Your task to perform on an android device: search for starred emails in the gmail app Image 0: 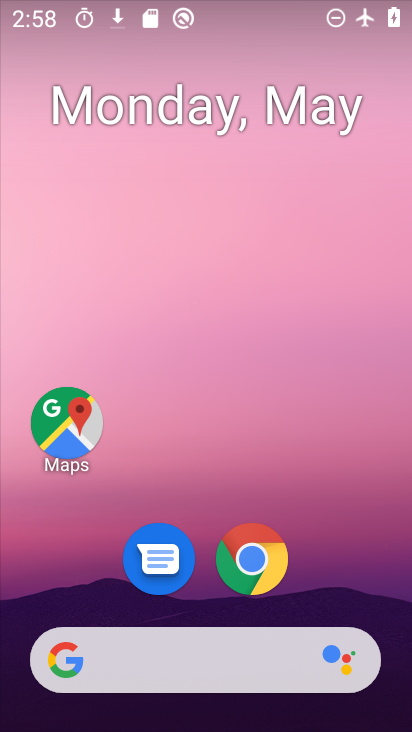
Step 0: drag from (222, 503) to (284, 170)
Your task to perform on an android device: search for starred emails in the gmail app Image 1: 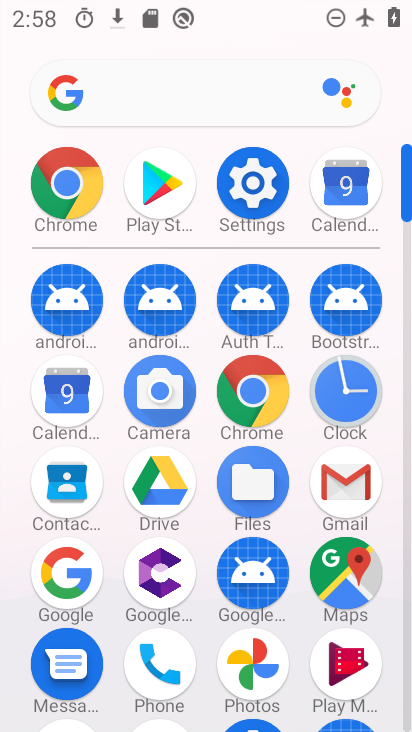
Step 1: click (341, 494)
Your task to perform on an android device: search for starred emails in the gmail app Image 2: 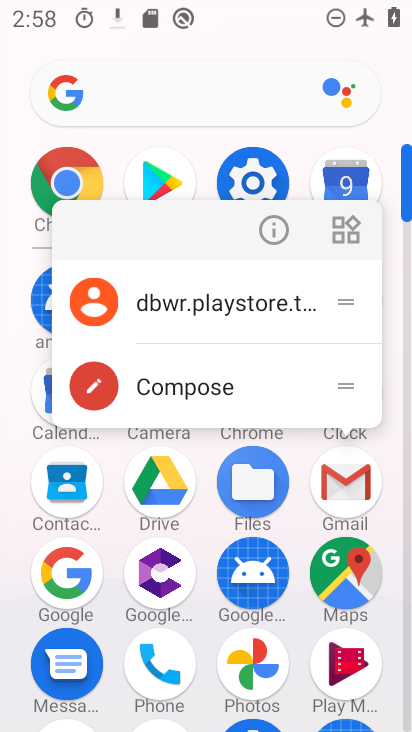
Step 2: click (288, 244)
Your task to perform on an android device: search for starred emails in the gmail app Image 3: 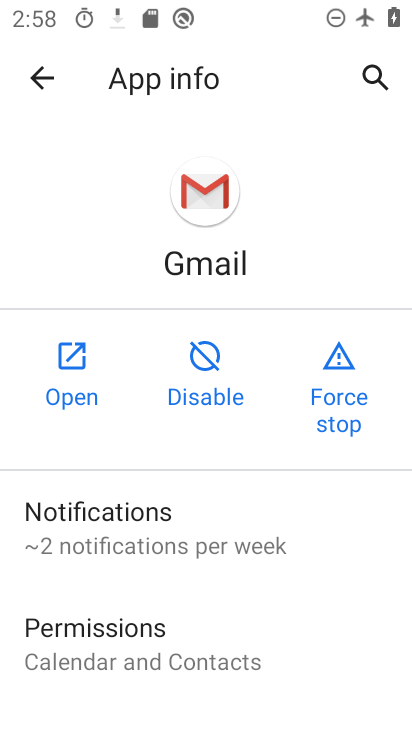
Step 3: click (86, 404)
Your task to perform on an android device: search for starred emails in the gmail app Image 4: 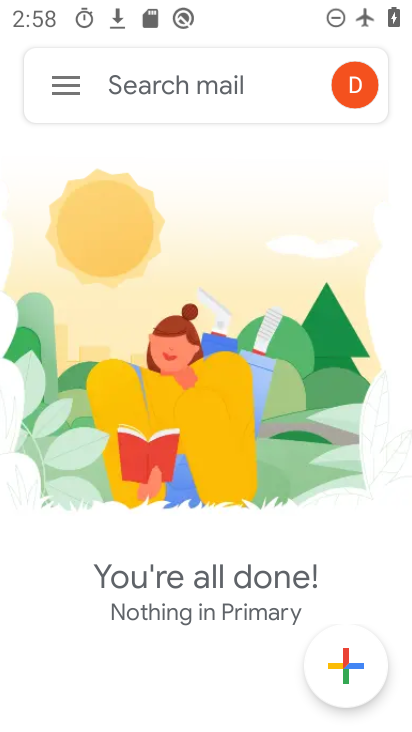
Step 4: click (74, 78)
Your task to perform on an android device: search for starred emails in the gmail app Image 5: 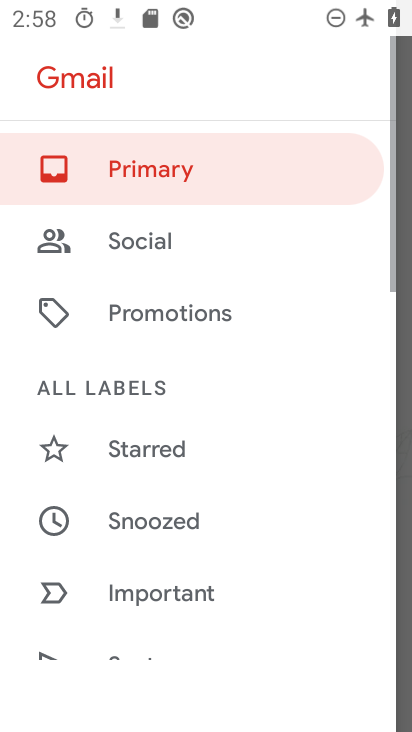
Step 5: drag from (140, 495) to (265, 70)
Your task to perform on an android device: search for starred emails in the gmail app Image 6: 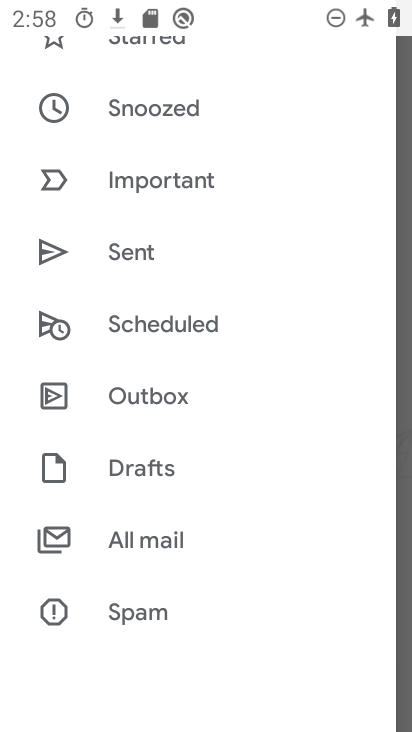
Step 6: drag from (173, 563) to (188, 175)
Your task to perform on an android device: search for starred emails in the gmail app Image 7: 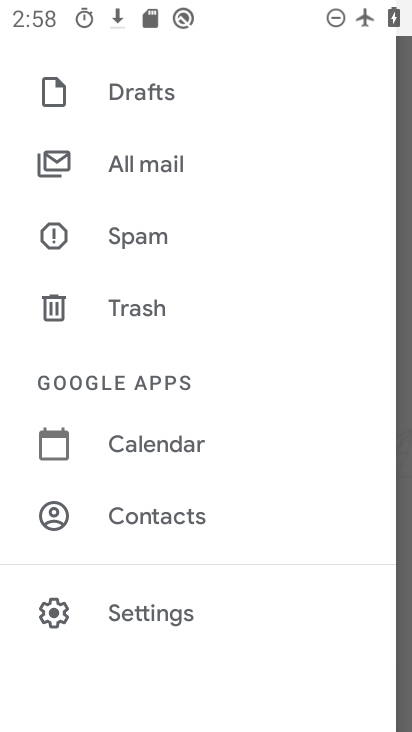
Step 7: drag from (199, 534) to (211, 186)
Your task to perform on an android device: search for starred emails in the gmail app Image 8: 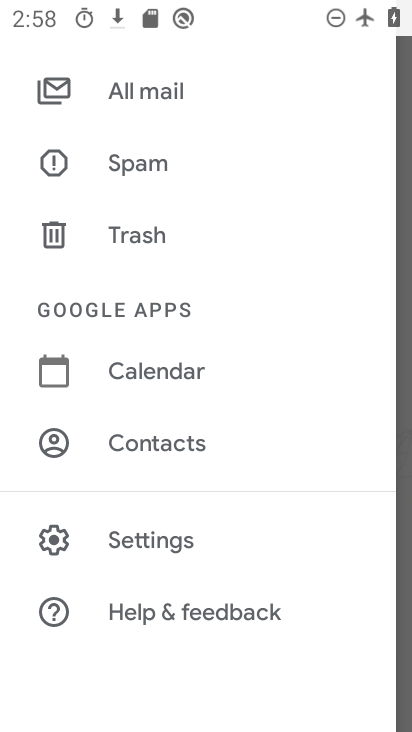
Step 8: click (252, 527)
Your task to perform on an android device: search for starred emails in the gmail app Image 9: 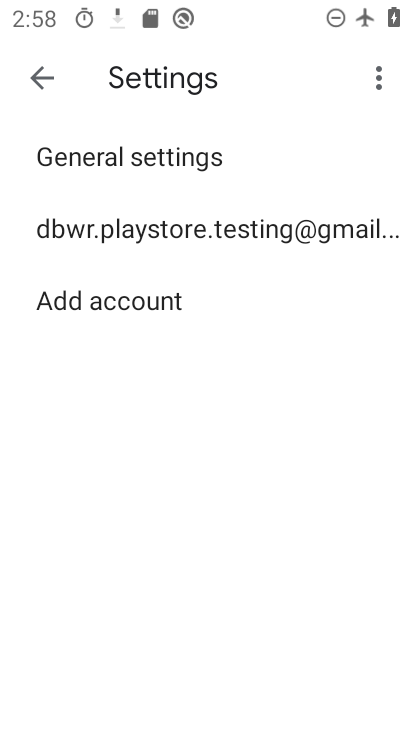
Step 9: click (49, 82)
Your task to perform on an android device: search for starred emails in the gmail app Image 10: 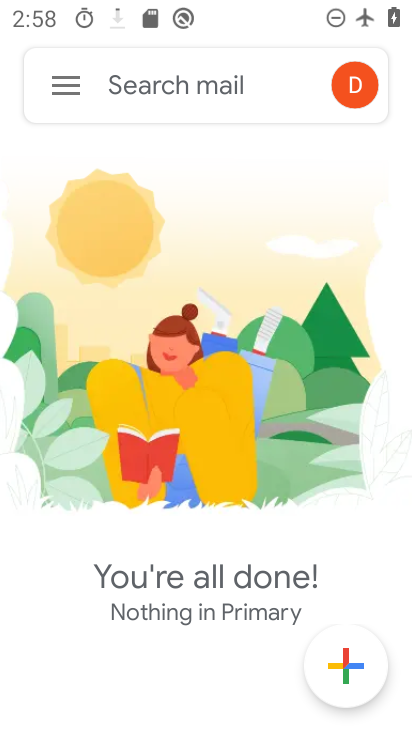
Step 10: click (69, 92)
Your task to perform on an android device: search for starred emails in the gmail app Image 11: 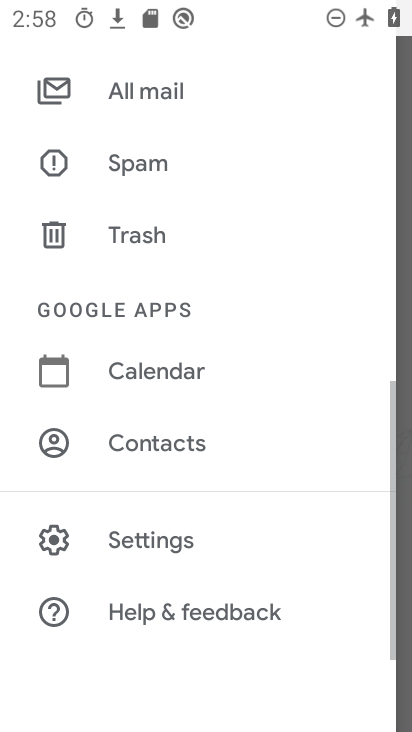
Step 11: drag from (161, 207) to (260, 713)
Your task to perform on an android device: search for starred emails in the gmail app Image 12: 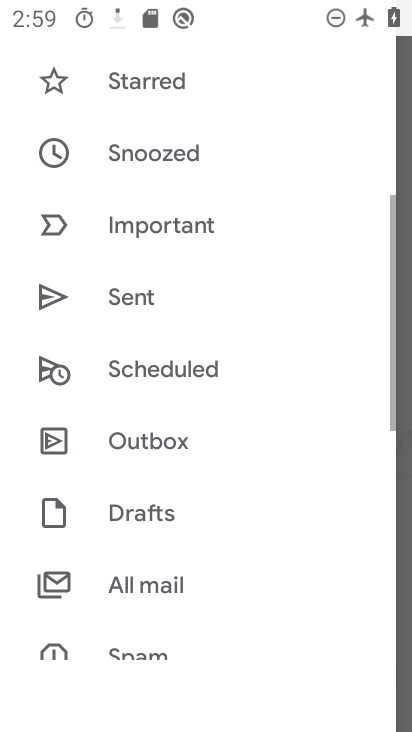
Step 12: click (148, 93)
Your task to perform on an android device: search for starred emails in the gmail app Image 13: 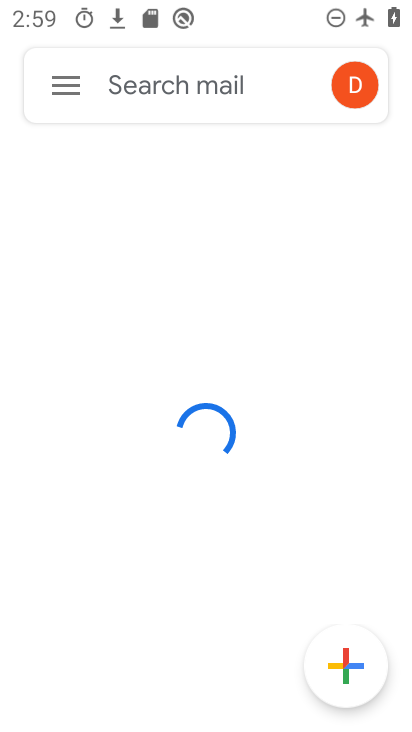
Step 13: task complete